Your task to perform on an android device: find photos in the google photos app Image 0: 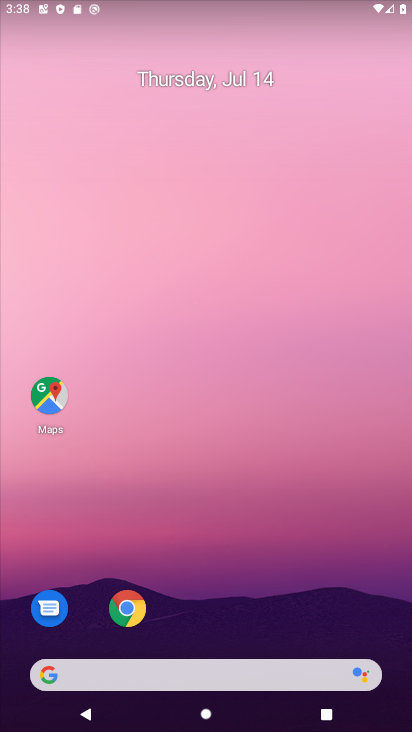
Step 0: drag from (24, 641) to (345, 115)
Your task to perform on an android device: find photos in the google photos app Image 1: 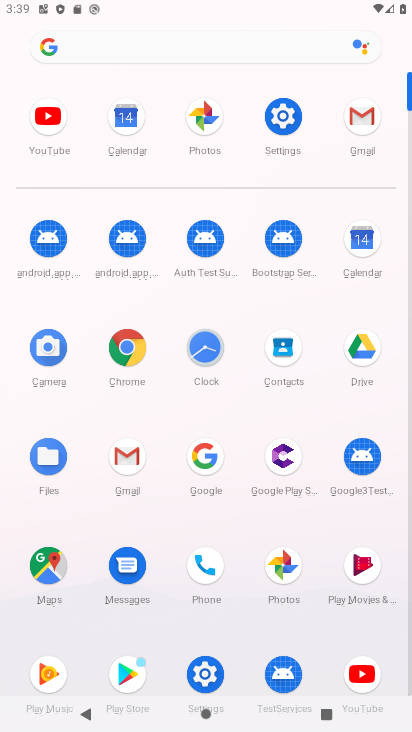
Step 1: click (296, 566)
Your task to perform on an android device: find photos in the google photos app Image 2: 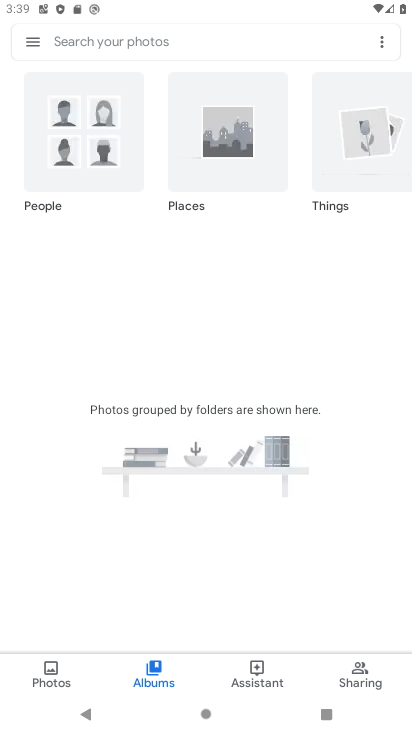
Step 2: click (52, 665)
Your task to perform on an android device: find photos in the google photos app Image 3: 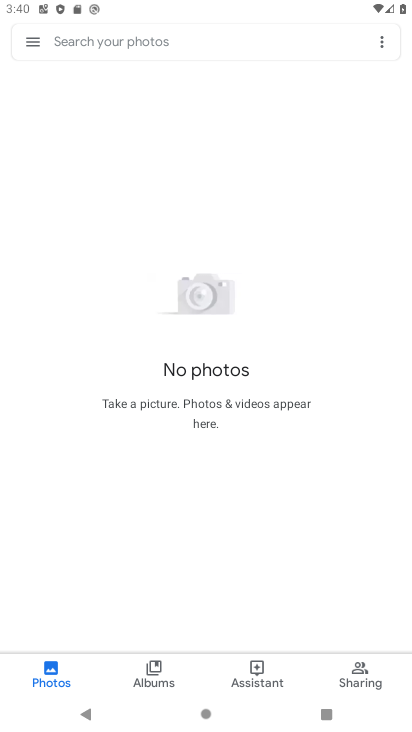
Step 3: task complete